Your task to perform on an android device: turn on priority inbox in the gmail app Image 0: 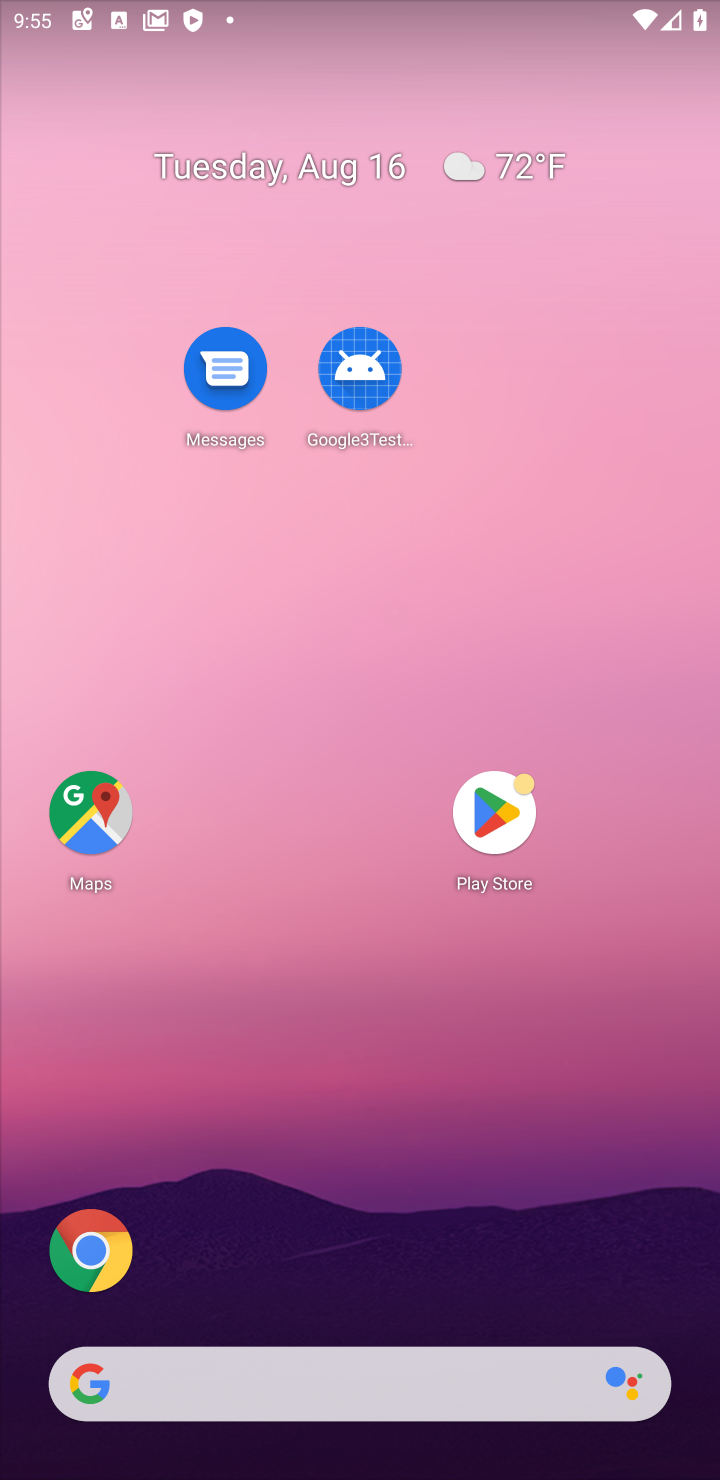
Step 0: drag from (293, 1275) to (430, 275)
Your task to perform on an android device: turn on priority inbox in the gmail app Image 1: 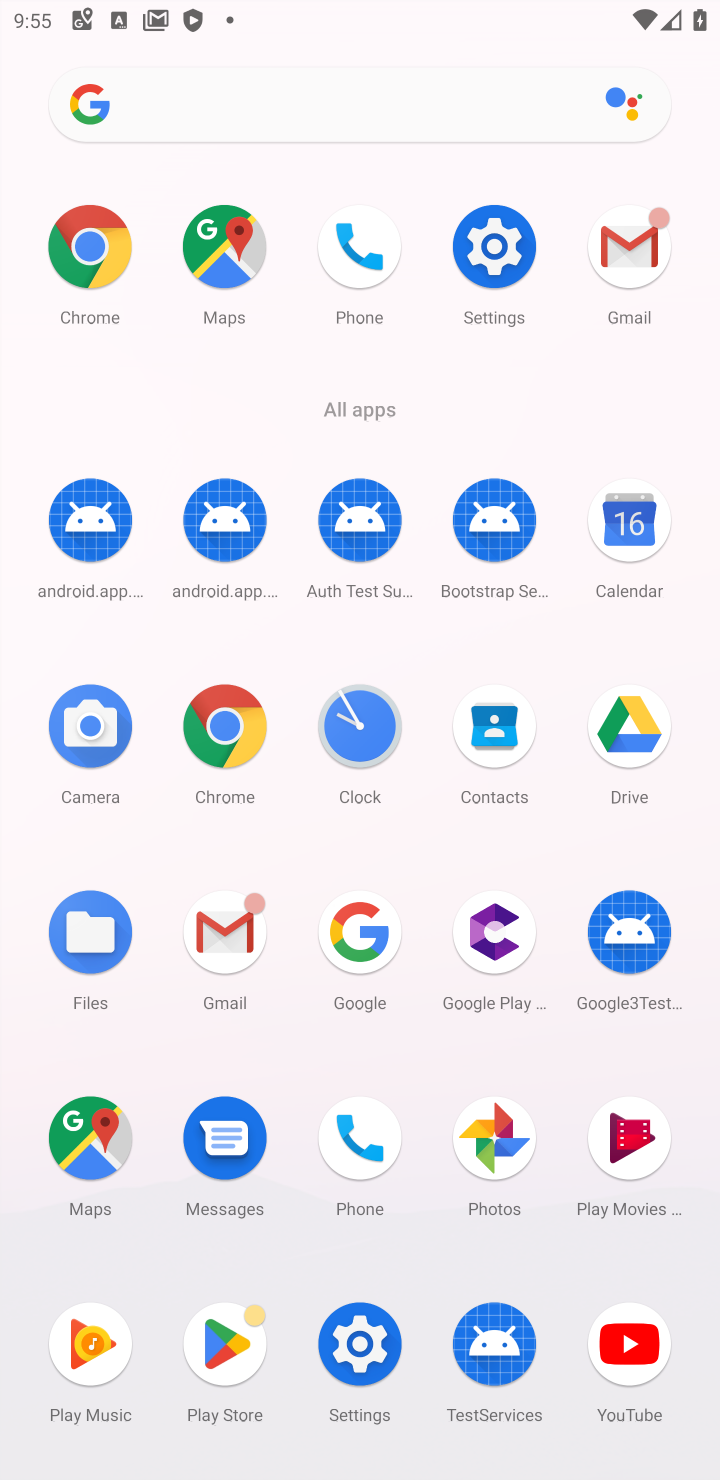
Step 1: click (621, 233)
Your task to perform on an android device: turn on priority inbox in the gmail app Image 2: 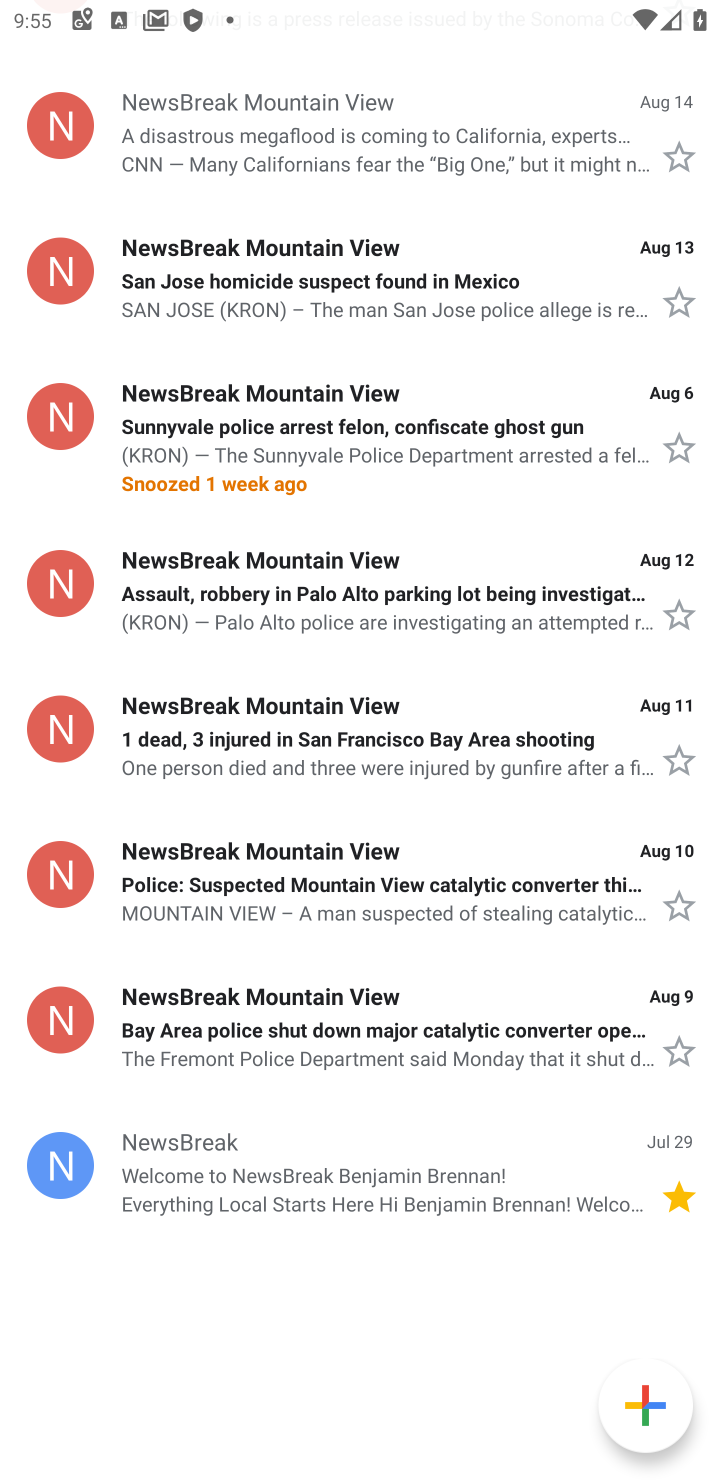
Step 2: drag from (459, 76) to (321, 953)
Your task to perform on an android device: turn on priority inbox in the gmail app Image 3: 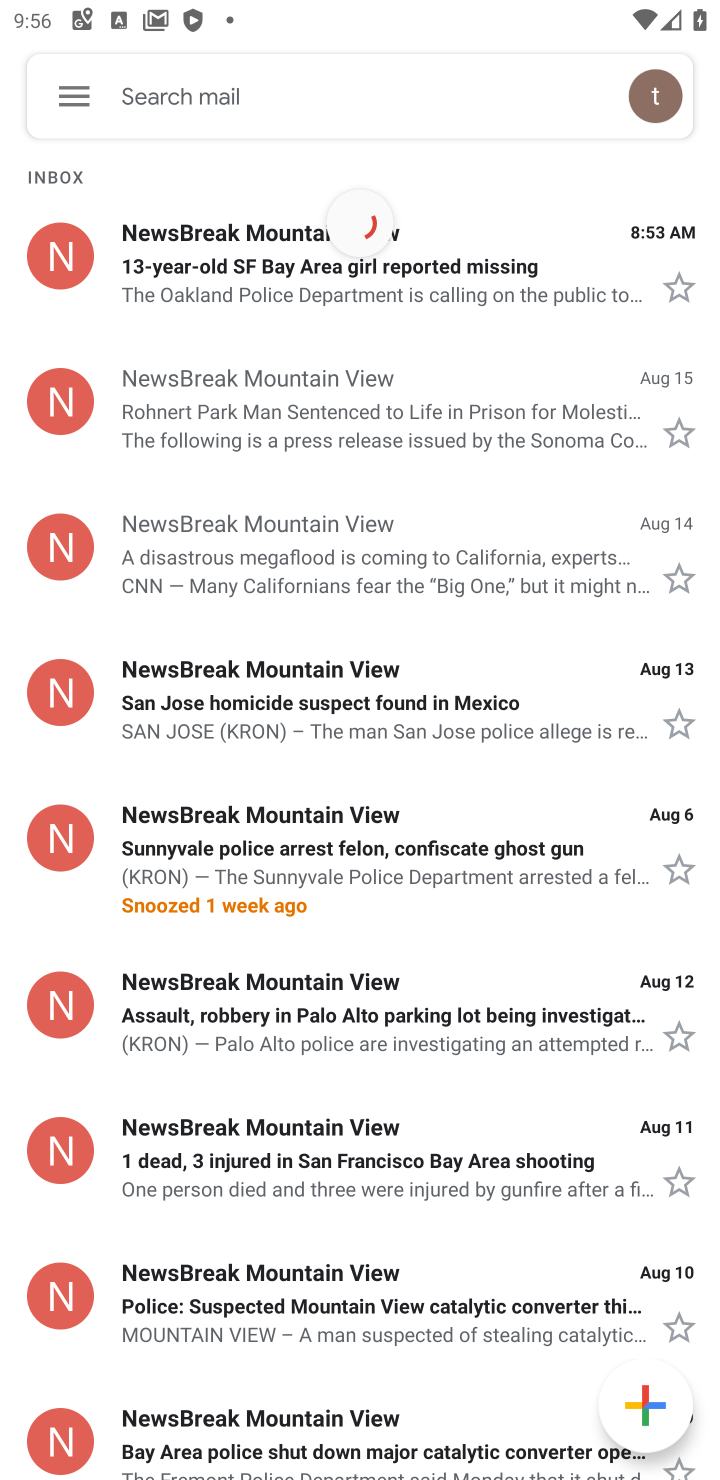
Step 3: click (54, 87)
Your task to perform on an android device: turn on priority inbox in the gmail app Image 4: 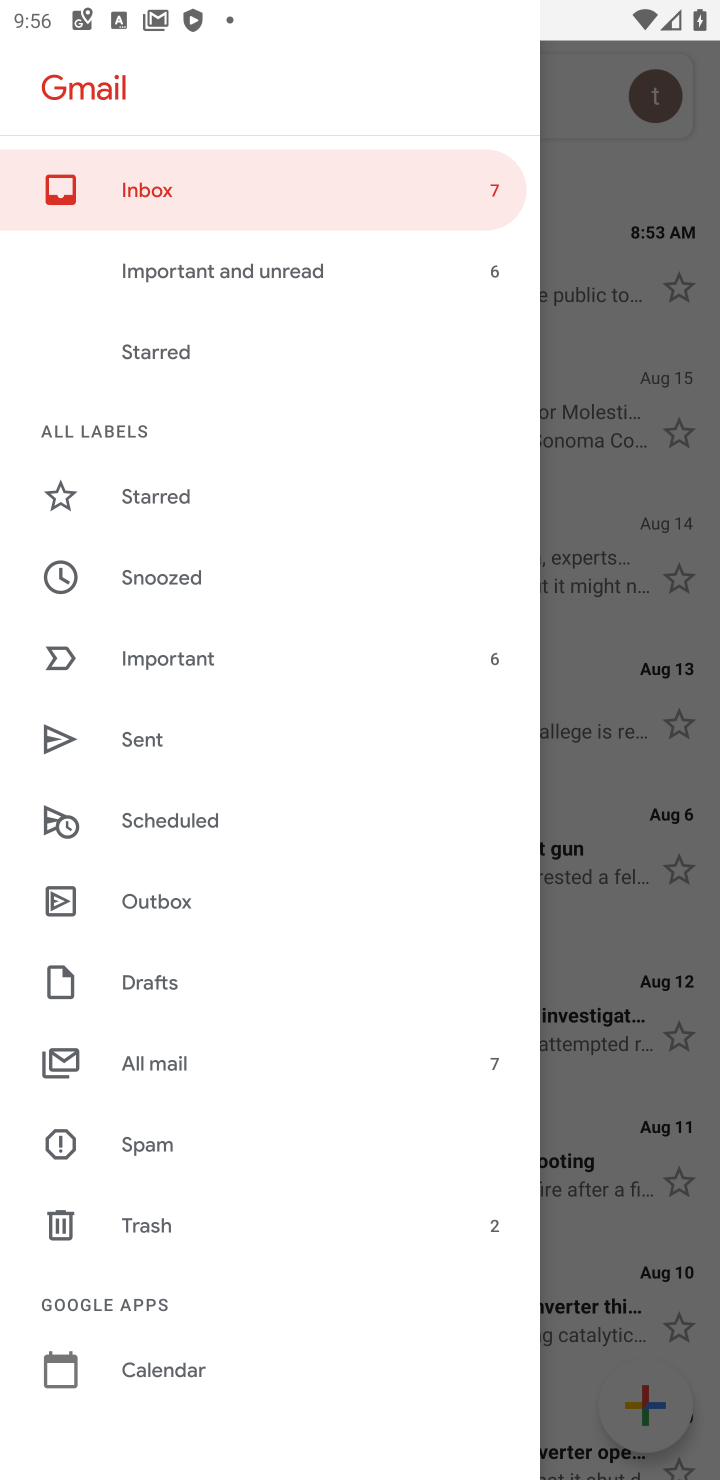
Step 4: drag from (262, 1362) to (319, 540)
Your task to perform on an android device: turn on priority inbox in the gmail app Image 5: 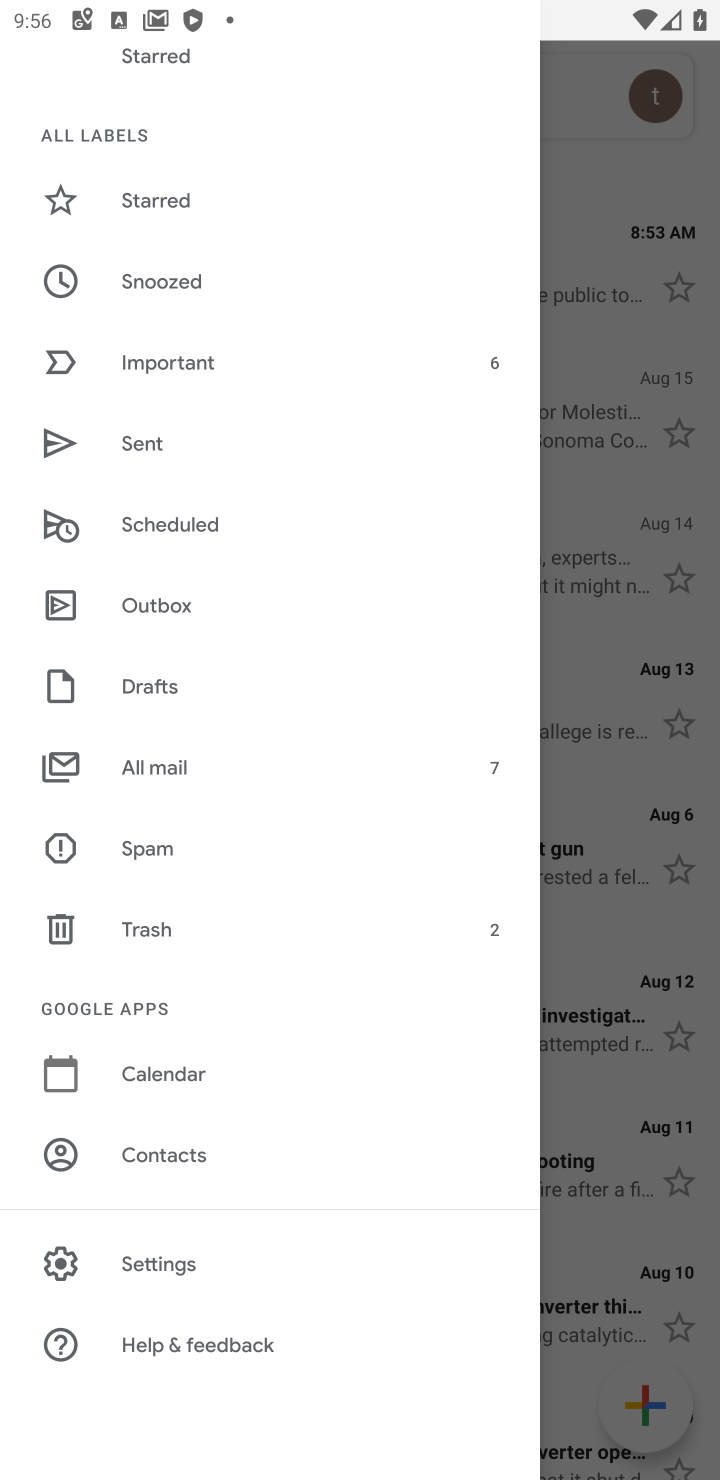
Step 5: click (236, 1257)
Your task to perform on an android device: turn on priority inbox in the gmail app Image 6: 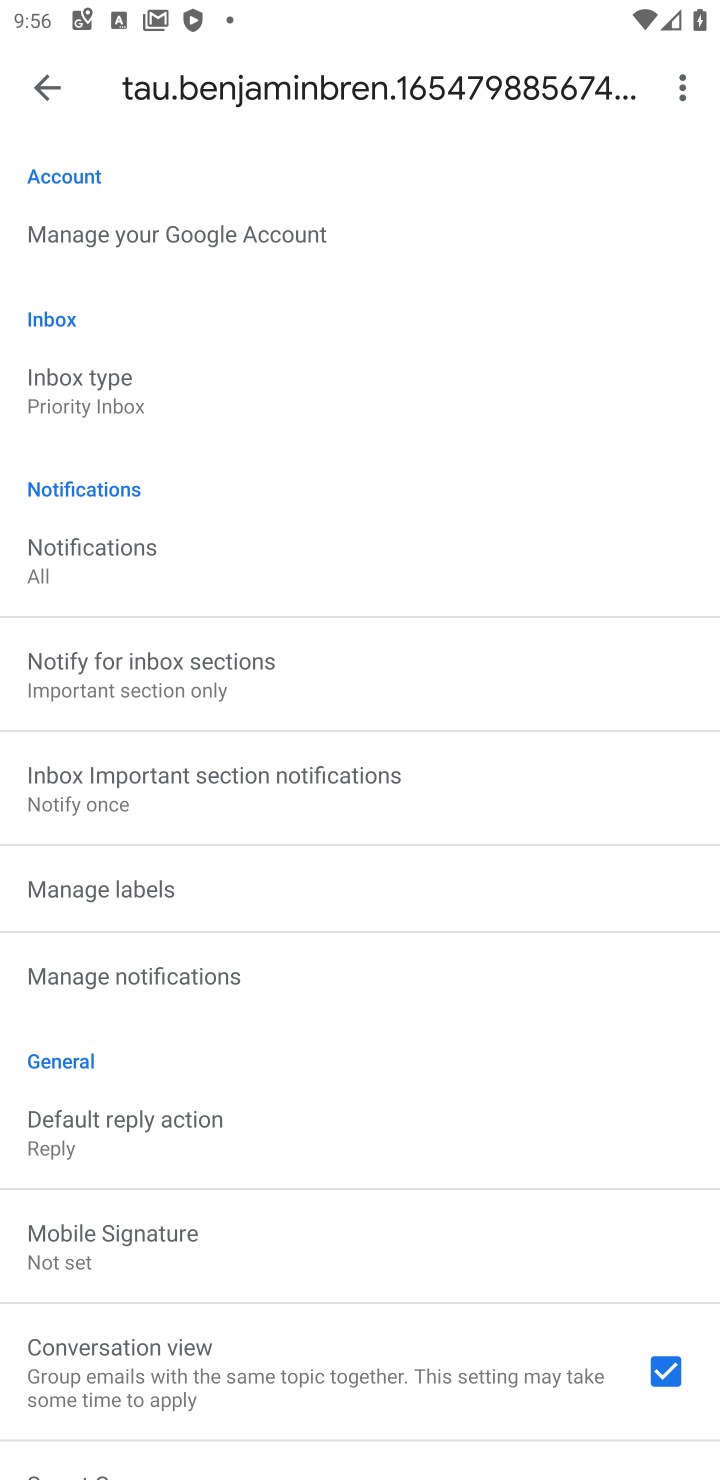
Step 6: task complete